Your task to perform on an android device: toggle sleep mode Image 0: 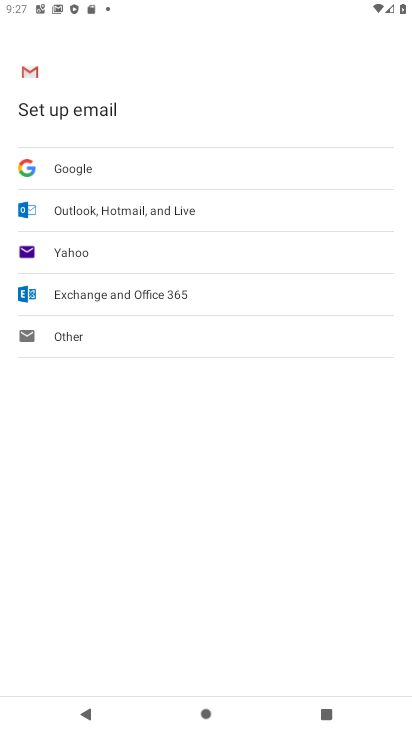
Step 0: press back button
Your task to perform on an android device: toggle sleep mode Image 1: 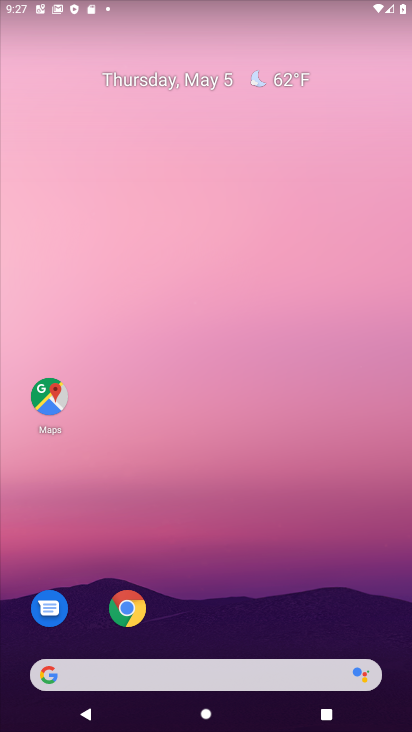
Step 1: drag from (296, 568) to (227, 1)
Your task to perform on an android device: toggle sleep mode Image 2: 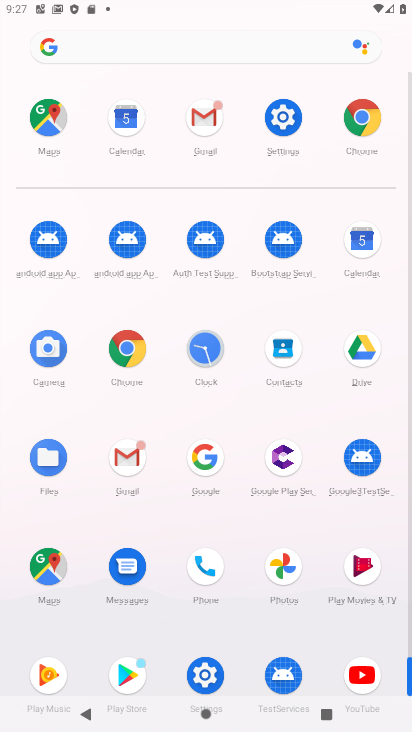
Step 2: click (284, 115)
Your task to perform on an android device: toggle sleep mode Image 3: 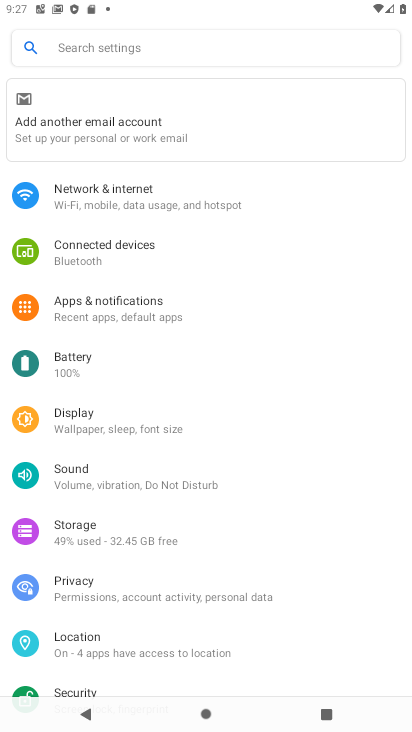
Step 3: click (125, 422)
Your task to perform on an android device: toggle sleep mode Image 4: 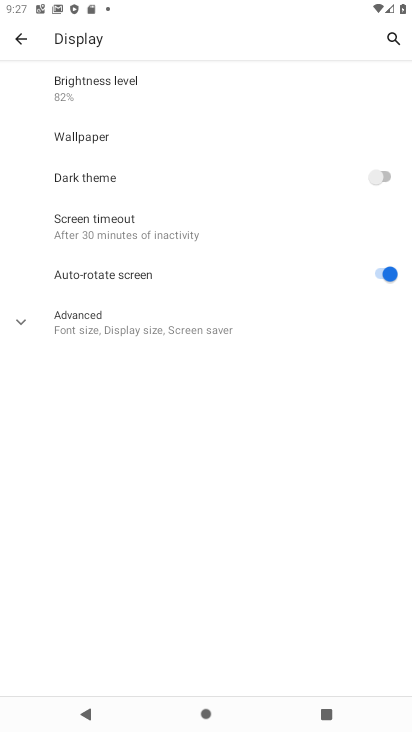
Step 4: click (15, 315)
Your task to perform on an android device: toggle sleep mode Image 5: 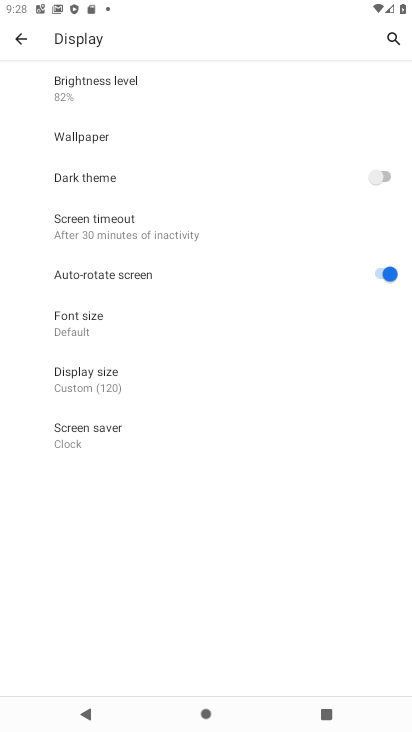
Step 5: task complete